Your task to perform on an android device: star an email in the gmail app Image 0: 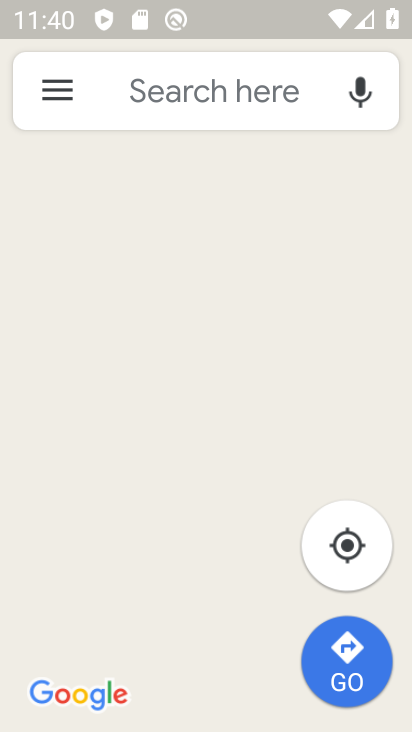
Step 0: drag from (286, 540) to (316, 306)
Your task to perform on an android device: star an email in the gmail app Image 1: 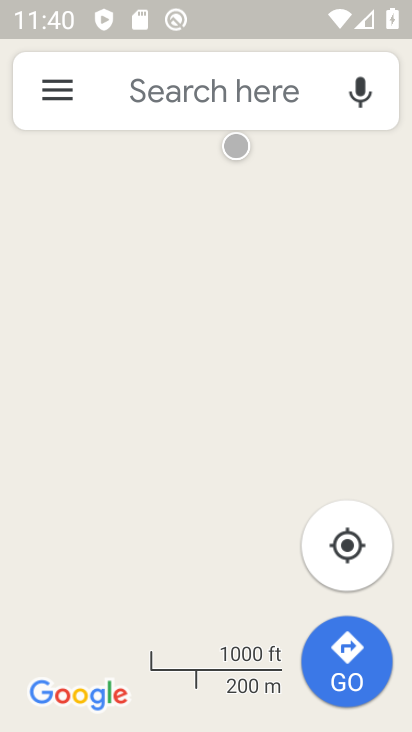
Step 1: press home button
Your task to perform on an android device: star an email in the gmail app Image 2: 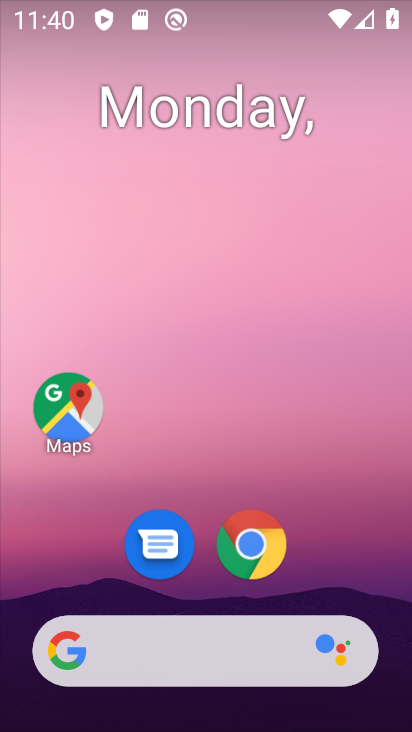
Step 2: drag from (323, 567) to (321, 289)
Your task to perform on an android device: star an email in the gmail app Image 3: 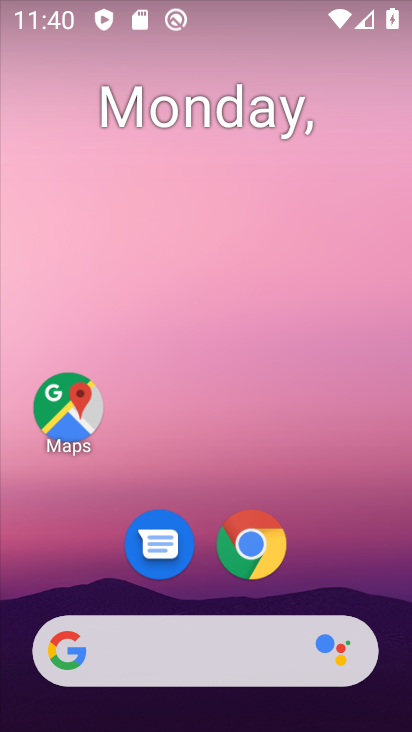
Step 3: drag from (321, 583) to (349, 241)
Your task to perform on an android device: star an email in the gmail app Image 4: 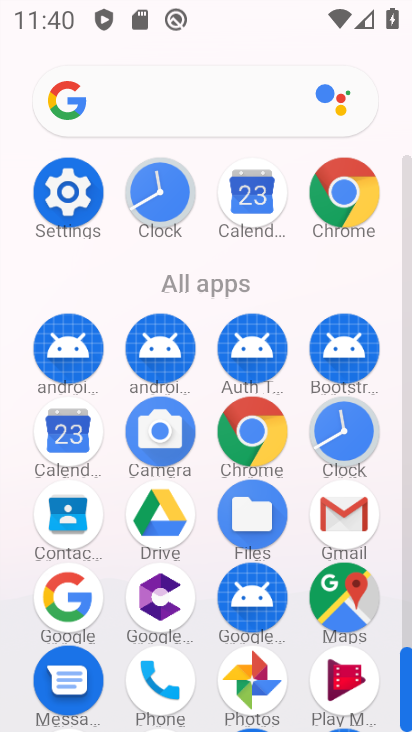
Step 4: click (364, 528)
Your task to perform on an android device: star an email in the gmail app Image 5: 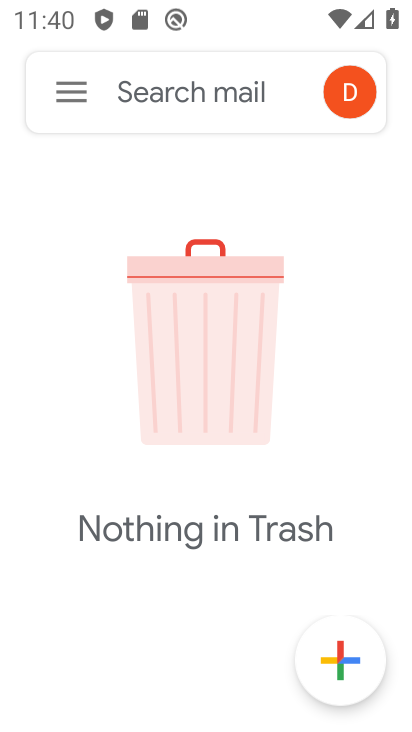
Step 5: click (63, 97)
Your task to perform on an android device: star an email in the gmail app Image 6: 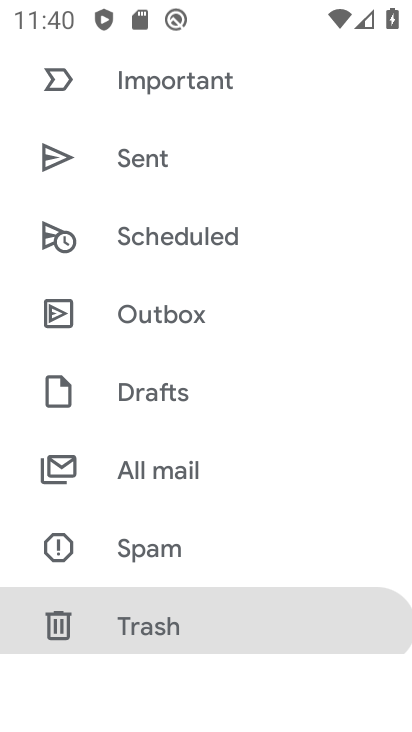
Step 6: drag from (99, 593) to (140, 328)
Your task to perform on an android device: star an email in the gmail app Image 7: 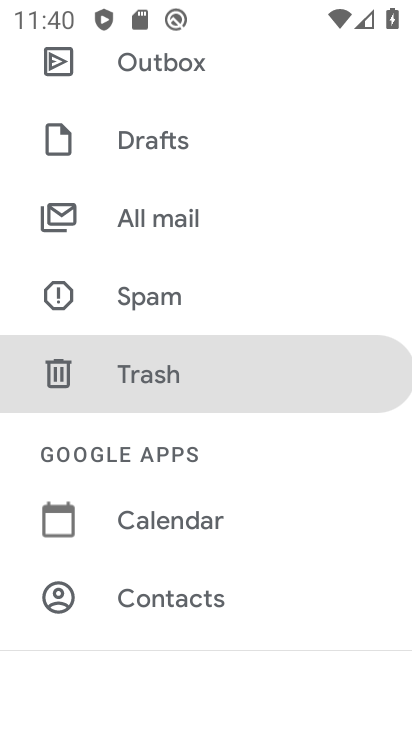
Step 7: drag from (120, 527) to (123, 286)
Your task to perform on an android device: star an email in the gmail app Image 8: 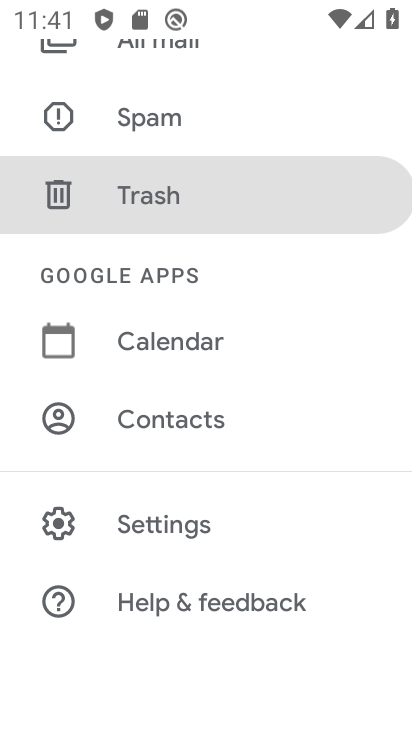
Step 8: click (174, 536)
Your task to perform on an android device: star an email in the gmail app Image 9: 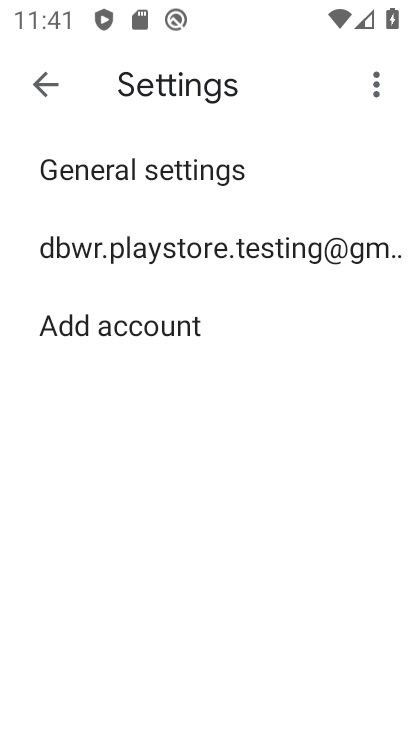
Step 9: press back button
Your task to perform on an android device: star an email in the gmail app Image 10: 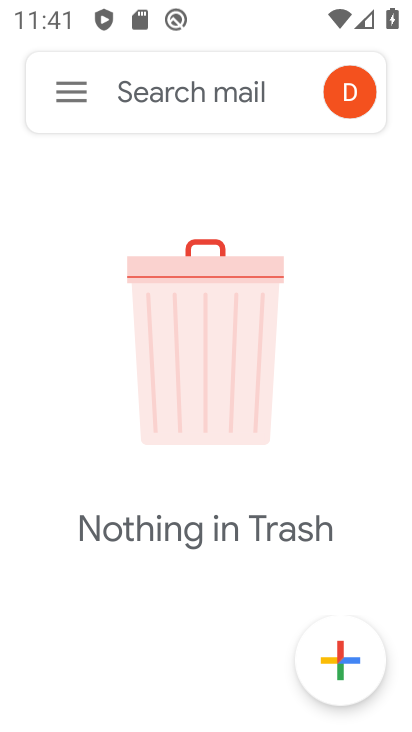
Step 10: click (60, 86)
Your task to perform on an android device: star an email in the gmail app Image 11: 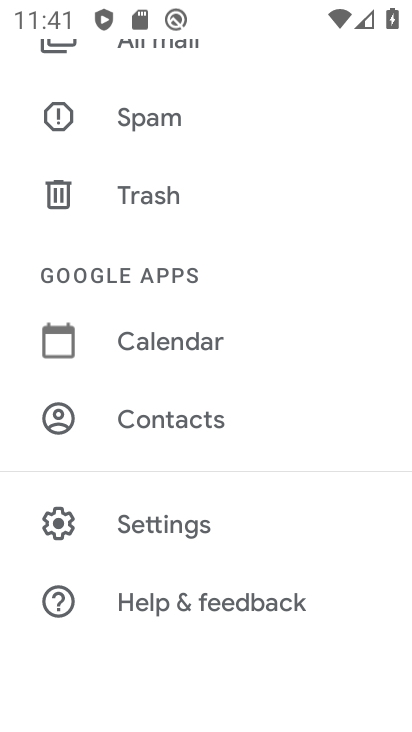
Step 11: drag from (153, 131) to (128, 496)
Your task to perform on an android device: star an email in the gmail app Image 12: 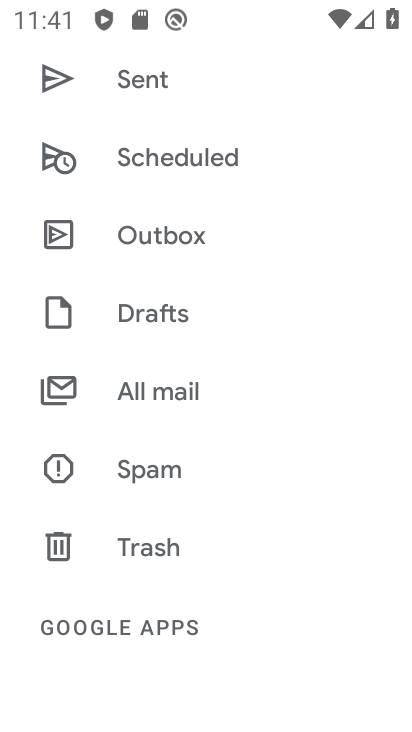
Step 12: drag from (299, 299) to (297, 545)
Your task to perform on an android device: star an email in the gmail app Image 13: 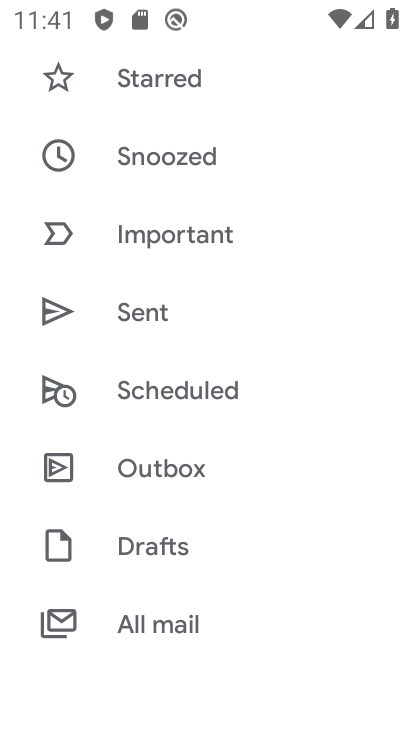
Step 13: drag from (290, 313) to (278, 552)
Your task to perform on an android device: star an email in the gmail app Image 14: 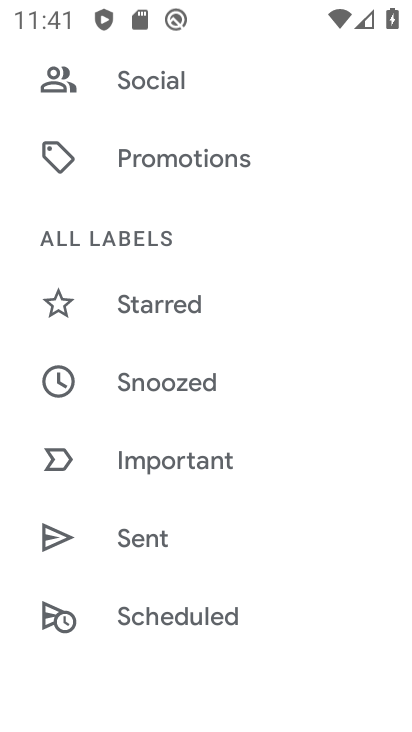
Step 14: click (211, 311)
Your task to perform on an android device: star an email in the gmail app Image 15: 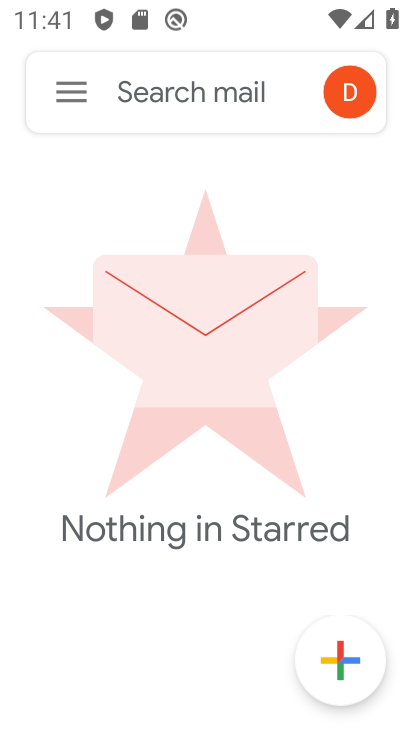
Step 15: click (84, 97)
Your task to perform on an android device: star an email in the gmail app Image 16: 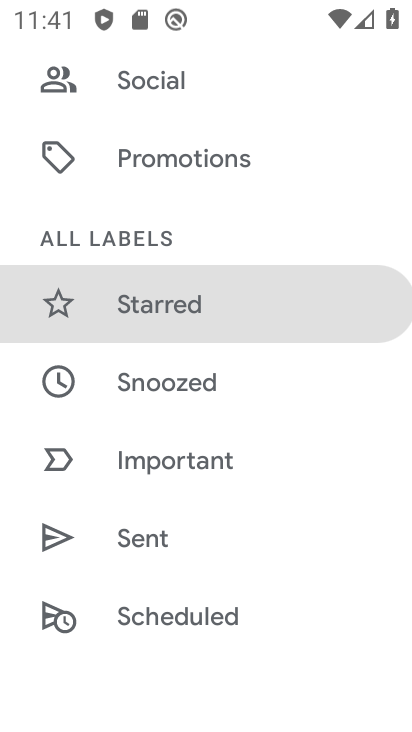
Step 16: task complete